Your task to perform on an android device: change the clock display to show seconds Image 0: 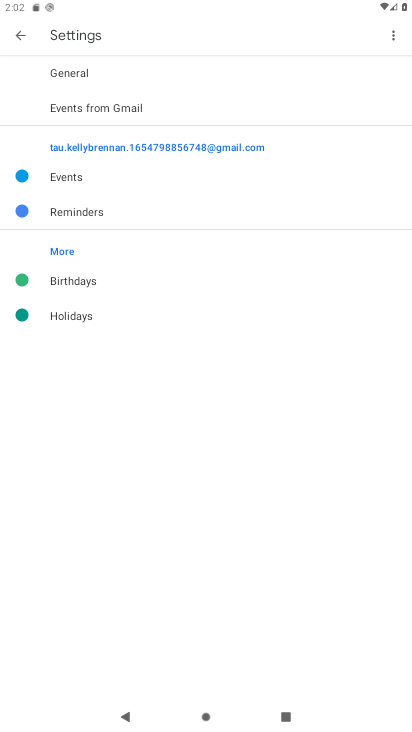
Step 0: press home button
Your task to perform on an android device: change the clock display to show seconds Image 1: 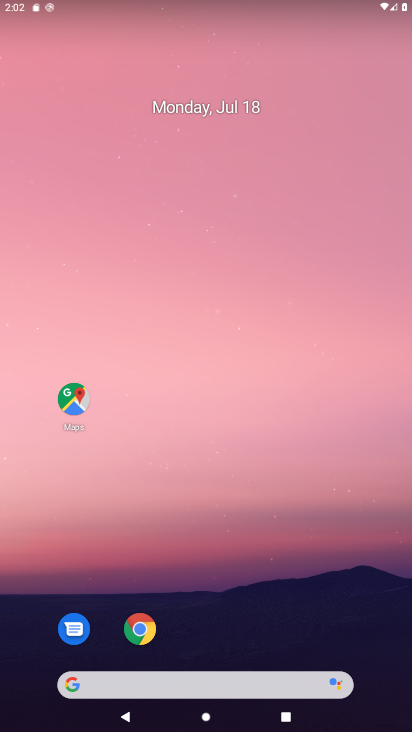
Step 1: drag from (190, 552) to (198, 97)
Your task to perform on an android device: change the clock display to show seconds Image 2: 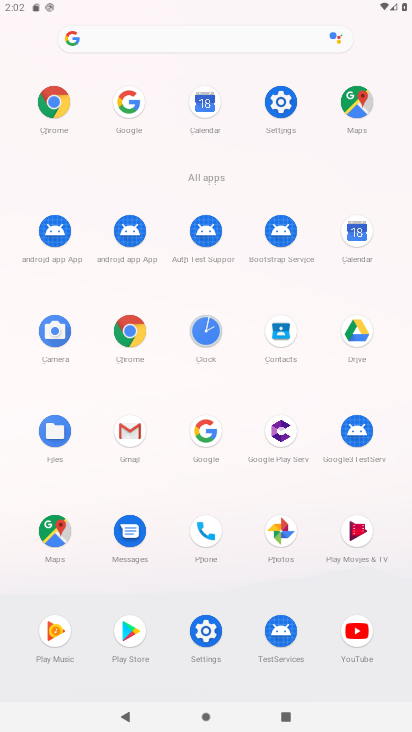
Step 2: click (207, 331)
Your task to perform on an android device: change the clock display to show seconds Image 3: 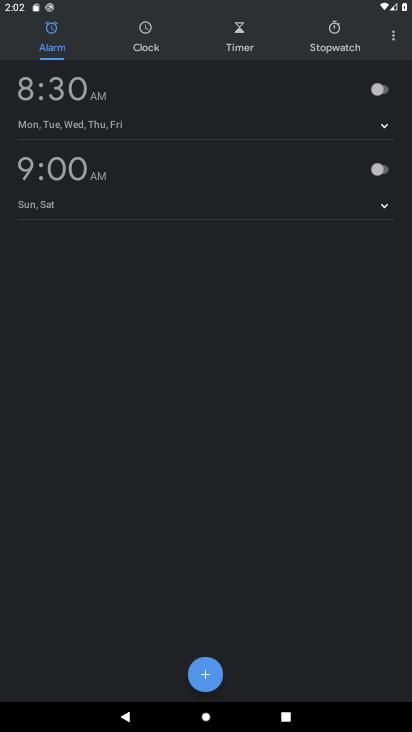
Step 3: click (395, 35)
Your task to perform on an android device: change the clock display to show seconds Image 4: 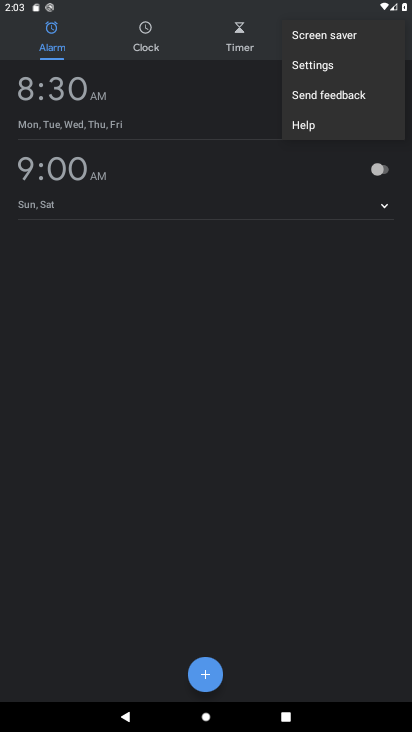
Step 4: click (319, 68)
Your task to perform on an android device: change the clock display to show seconds Image 5: 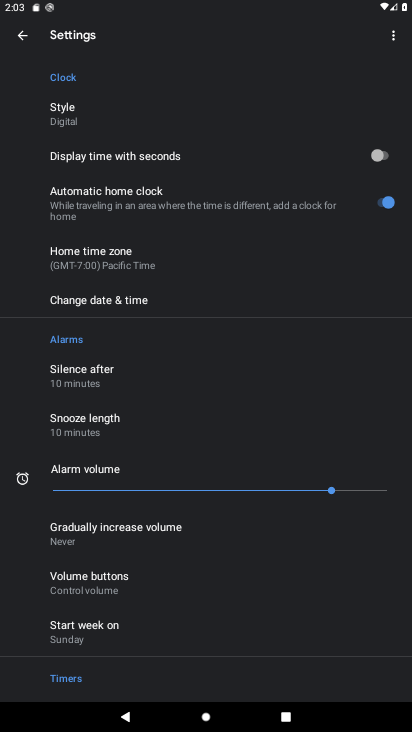
Step 5: click (390, 156)
Your task to perform on an android device: change the clock display to show seconds Image 6: 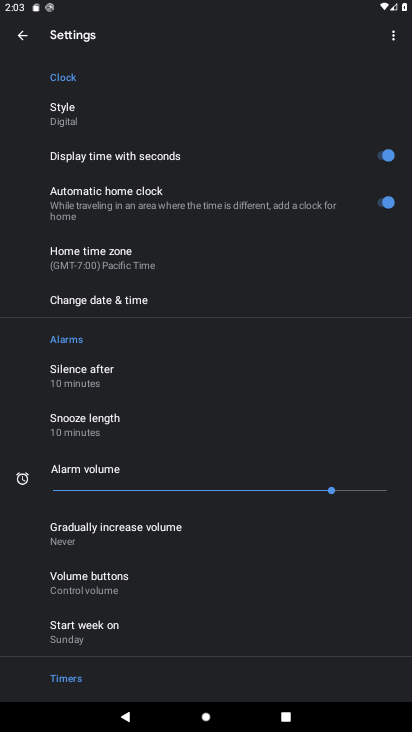
Step 6: task complete